Your task to perform on an android device: toggle location history Image 0: 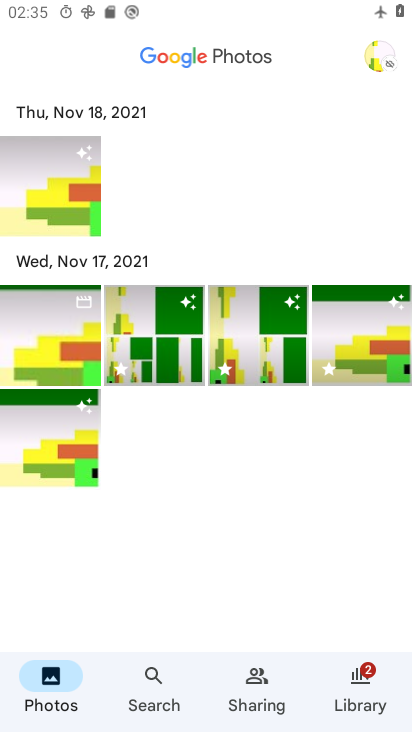
Step 0: press home button
Your task to perform on an android device: toggle location history Image 1: 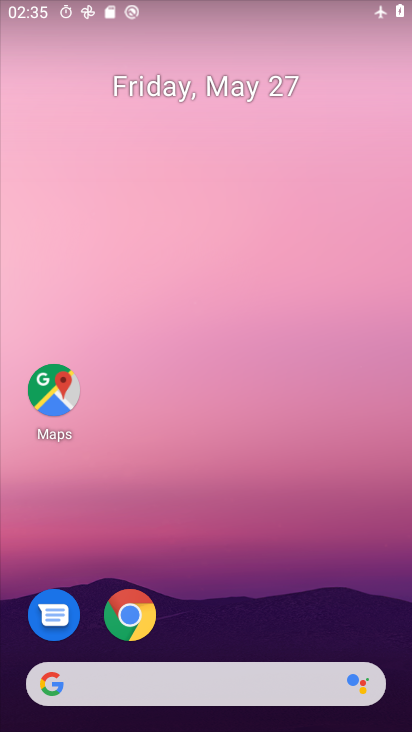
Step 1: drag from (354, 621) to (370, 136)
Your task to perform on an android device: toggle location history Image 2: 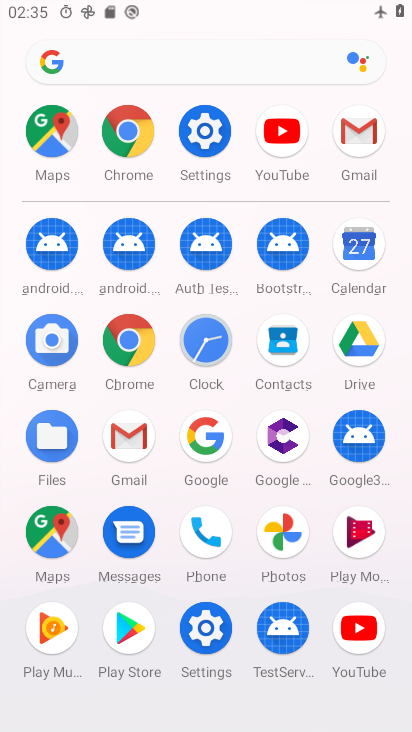
Step 2: click (209, 638)
Your task to perform on an android device: toggle location history Image 3: 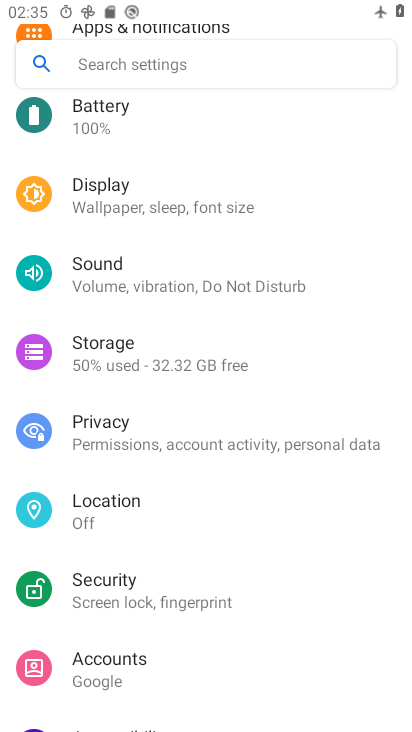
Step 3: drag from (327, 598) to (347, 319)
Your task to perform on an android device: toggle location history Image 4: 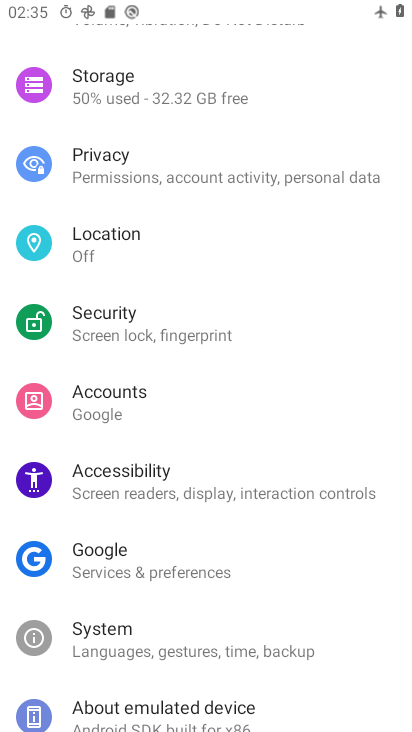
Step 4: drag from (336, 625) to (342, 468)
Your task to perform on an android device: toggle location history Image 5: 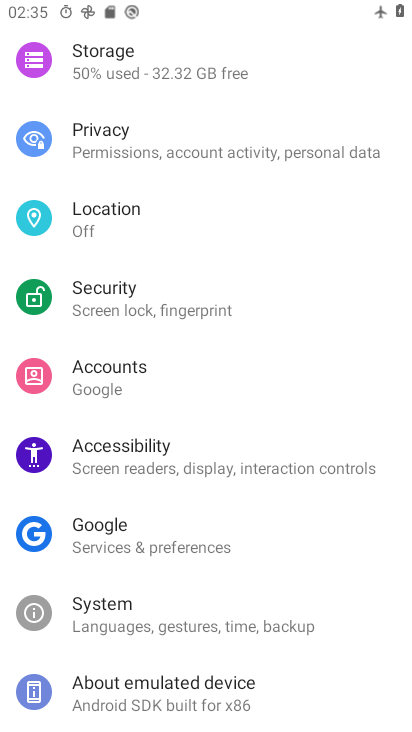
Step 5: drag from (341, 354) to (347, 468)
Your task to perform on an android device: toggle location history Image 6: 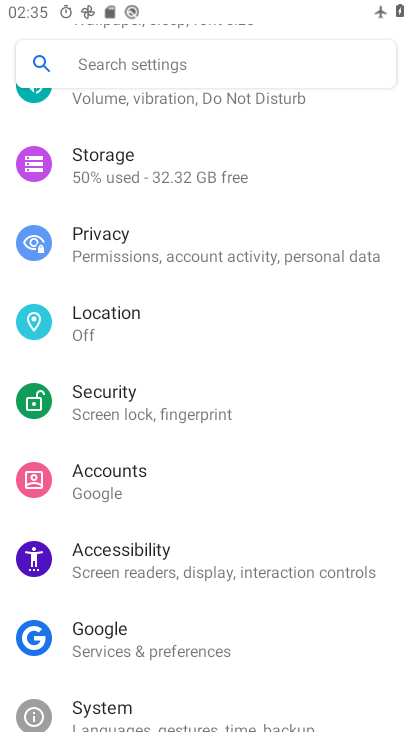
Step 6: drag from (347, 357) to (347, 453)
Your task to perform on an android device: toggle location history Image 7: 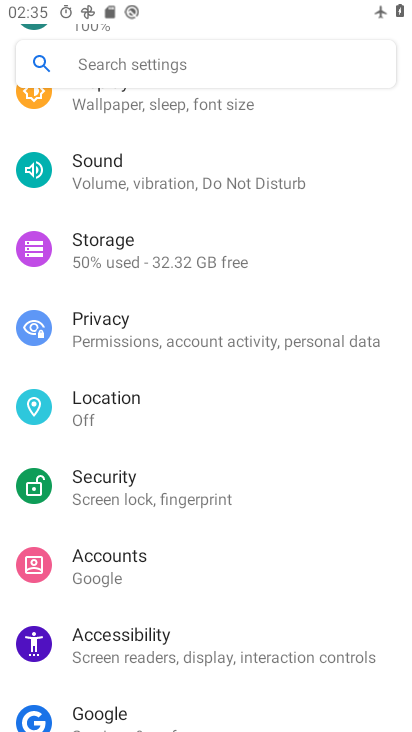
Step 7: drag from (346, 337) to (353, 461)
Your task to perform on an android device: toggle location history Image 8: 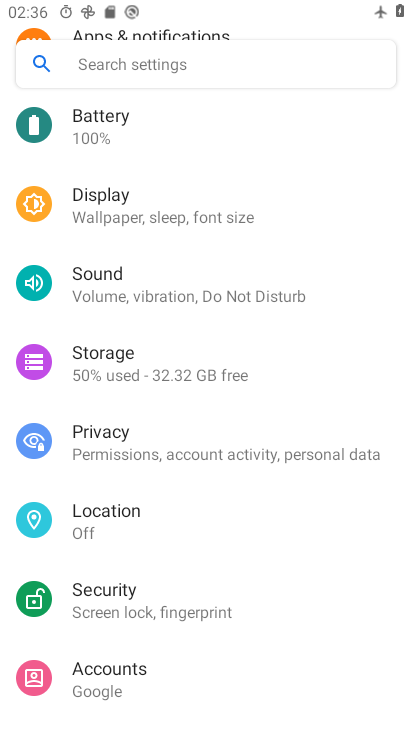
Step 8: drag from (366, 274) to (360, 503)
Your task to perform on an android device: toggle location history Image 9: 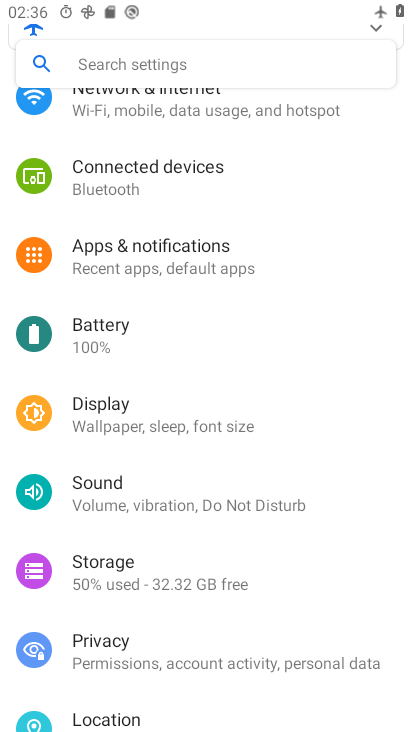
Step 9: drag from (345, 295) to (347, 495)
Your task to perform on an android device: toggle location history Image 10: 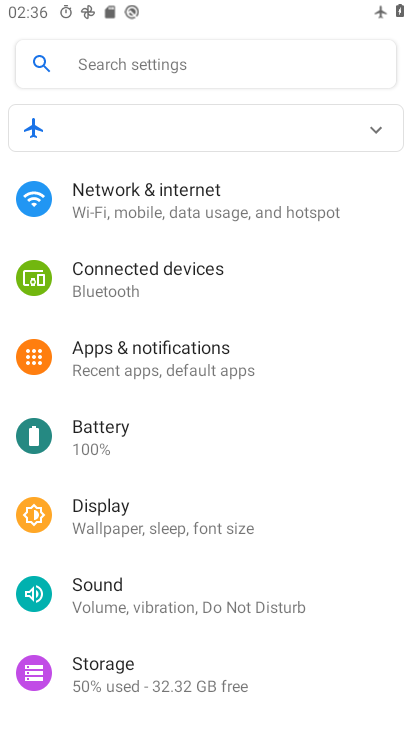
Step 10: drag from (344, 570) to (336, 450)
Your task to perform on an android device: toggle location history Image 11: 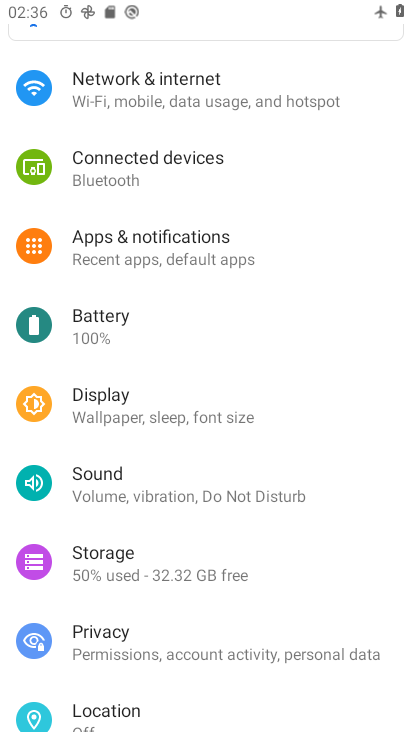
Step 11: drag from (332, 585) to (338, 456)
Your task to perform on an android device: toggle location history Image 12: 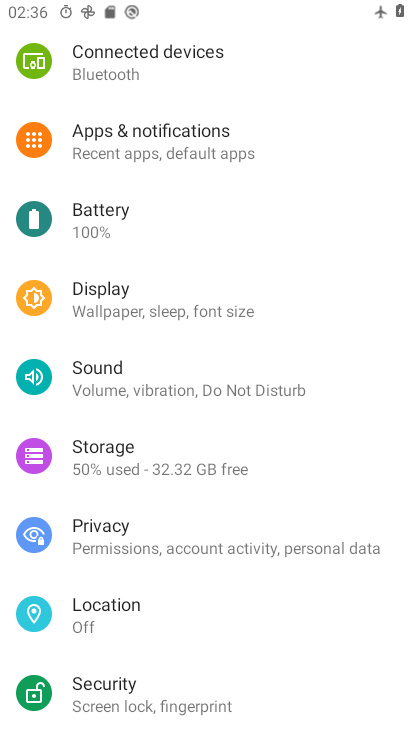
Step 12: drag from (331, 613) to (332, 482)
Your task to perform on an android device: toggle location history Image 13: 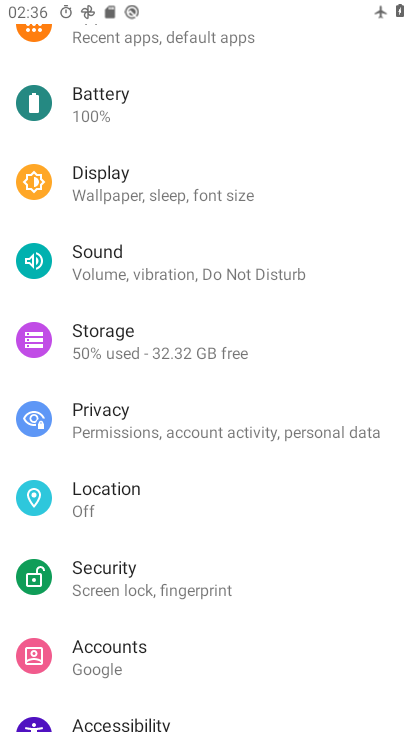
Step 13: click (150, 490)
Your task to perform on an android device: toggle location history Image 14: 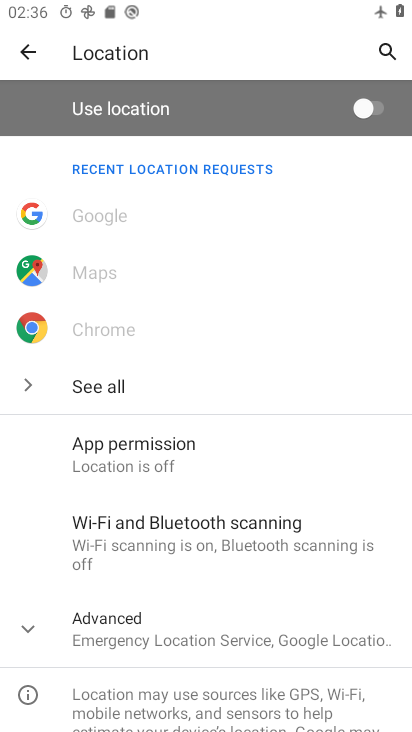
Step 14: drag from (332, 566) to (341, 409)
Your task to perform on an android device: toggle location history Image 15: 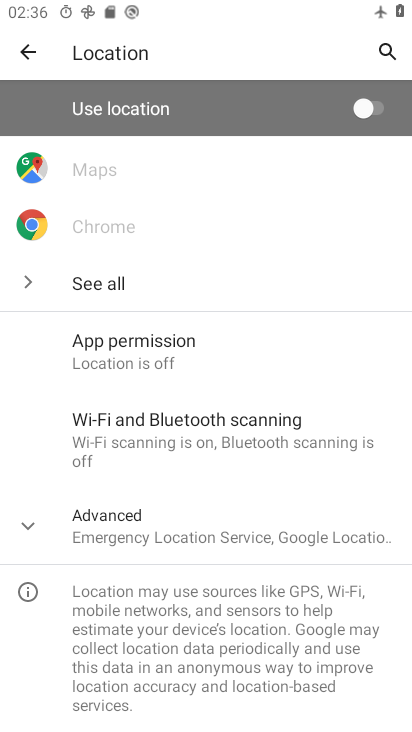
Step 15: click (321, 523)
Your task to perform on an android device: toggle location history Image 16: 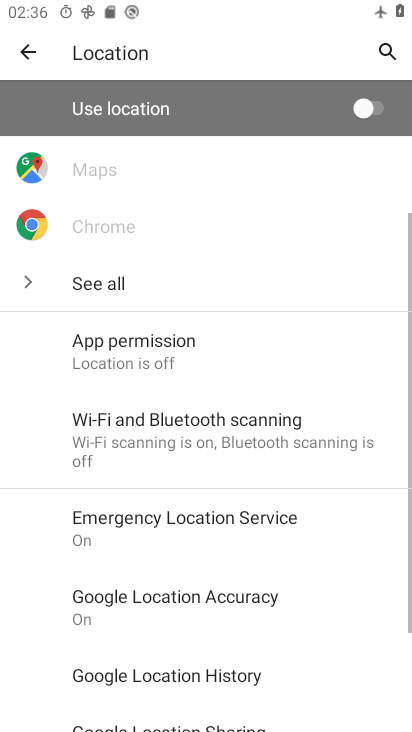
Step 16: drag from (325, 605) to (335, 408)
Your task to perform on an android device: toggle location history Image 17: 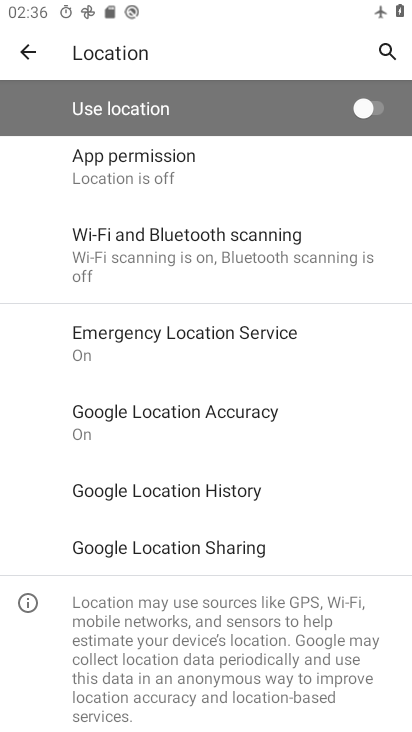
Step 17: click (247, 485)
Your task to perform on an android device: toggle location history Image 18: 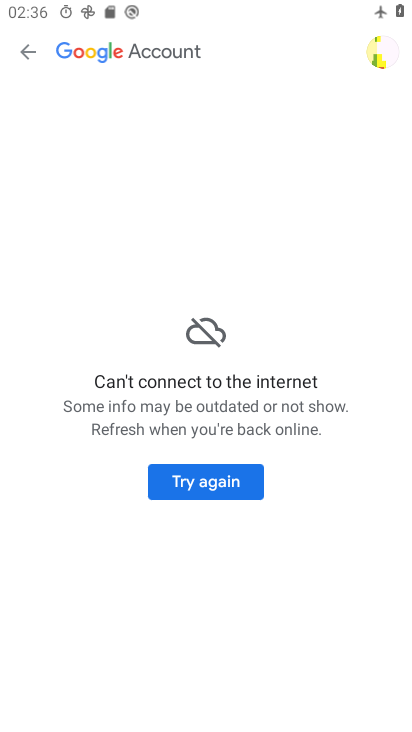
Step 18: task complete